Your task to perform on an android device: Open Google Chrome and open the bookmarks view Image 0: 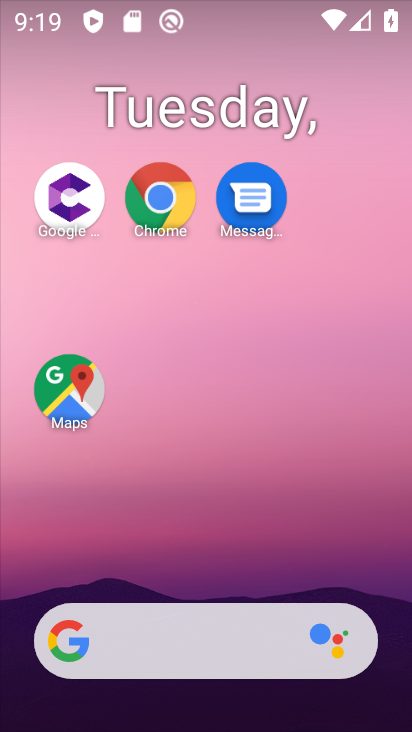
Step 0: drag from (209, 581) to (234, 13)
Your task to perform on an android device: Open Google Chrome and open the bookmarks view Image 1: 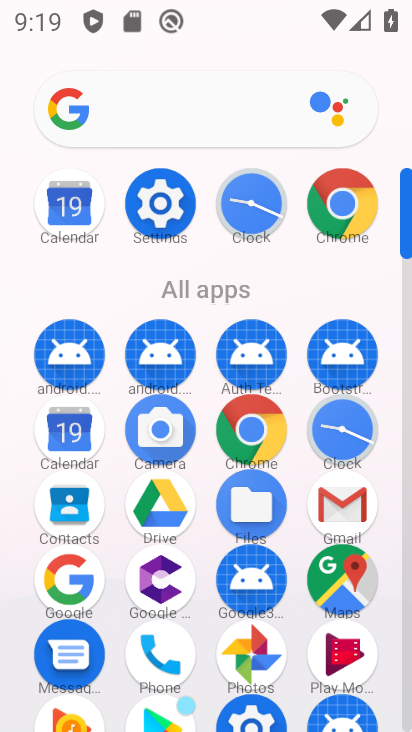
Step 1: click (333, 213)
Your task to perform on an android device: Open Google Chrome and open the bookmarks view Image 2: 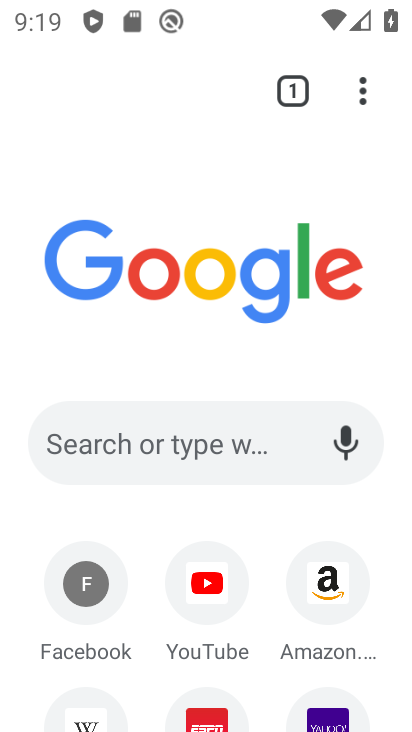
Step 2: click (353, 105)
Your task to perform on an android device: Open Google Chrome and open the bookmarks view Image 3: 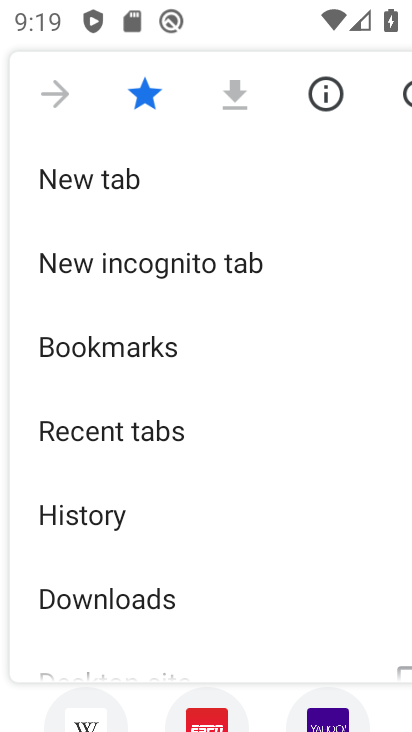
Step 3: click (92, 352)
Your task to perform on an android device: Open Google Chrome and open the bookmarks view Image 4: 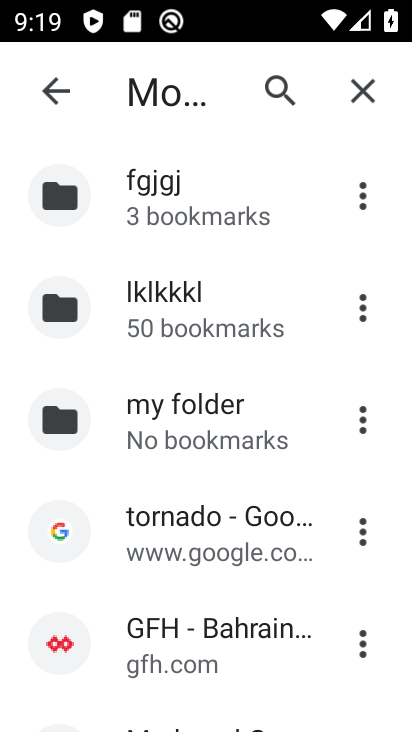
Step 4: task complete